Your task to perform on an android device: Open location settings Image 0: 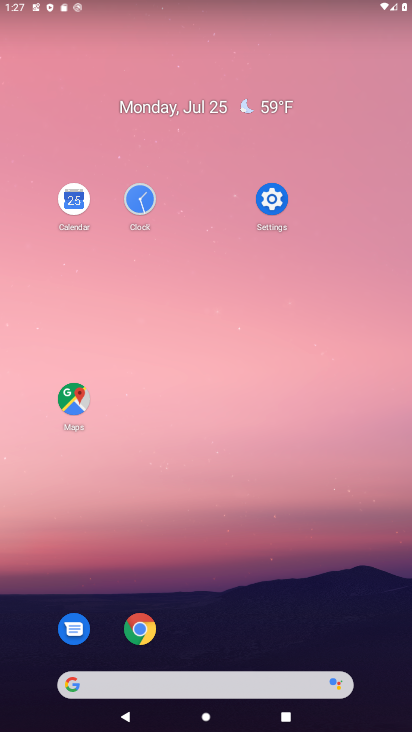
Step 0: click (284, 200)
Your task to perform on an android device: Open location settings Image 1: 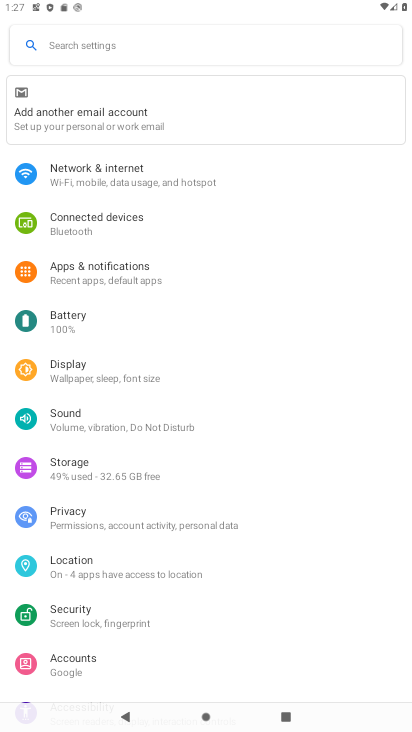
Step 1: click (172, 553)
Your task to perform on an android device: Open location settings Image 2: 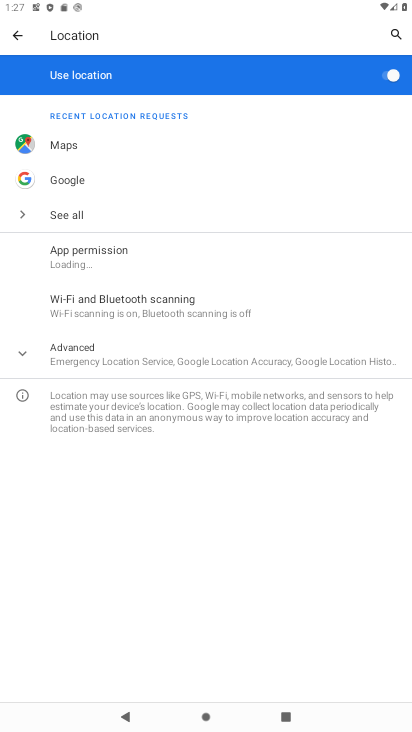
Step 2: task complete